Your task to perform on an android device: check android version Image 0: 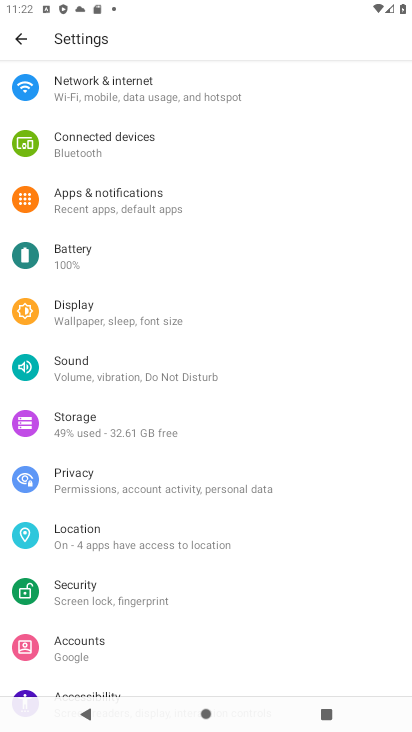
Step 0: task complete